Your task to perform on an android device: open a bookmark in the chrome app Image 0: 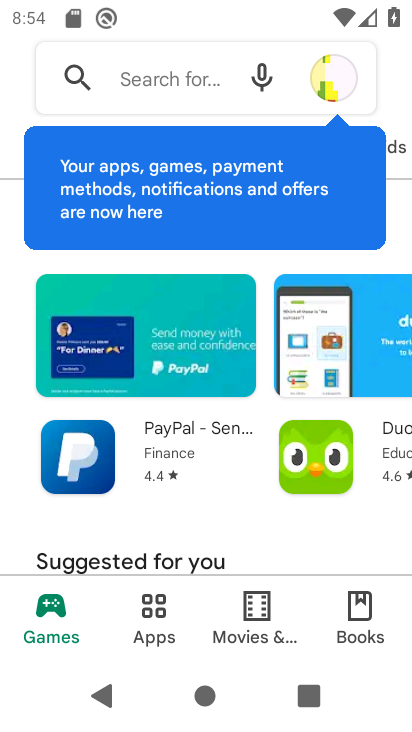
Step 0: press home button
Your task to perform on an android device: open a bookmark in the chrome app Image 1: 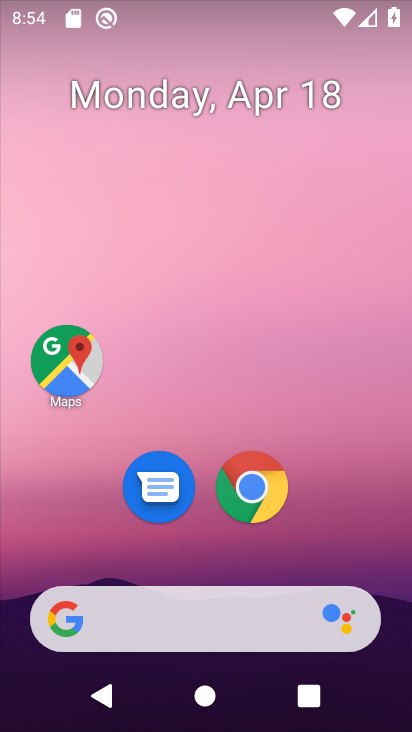
Step 1: click (261, 488)
Your task to perform on an android device: open a bookmark in the chrome app Image 2: 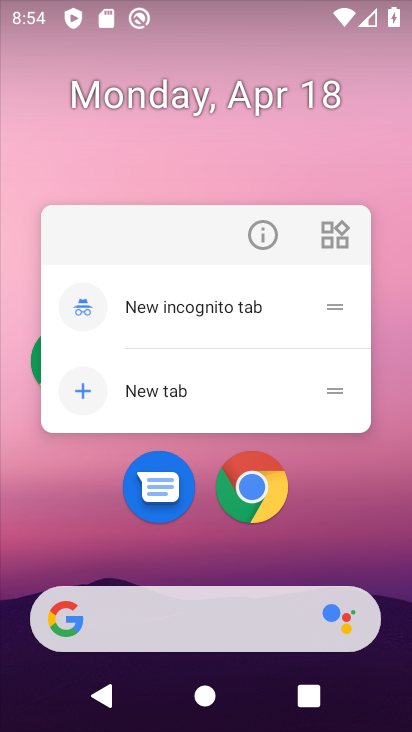
Step 2: click (261, 488)
Your task to perform on an android device: open a bookmark in the chrome app Image 3: 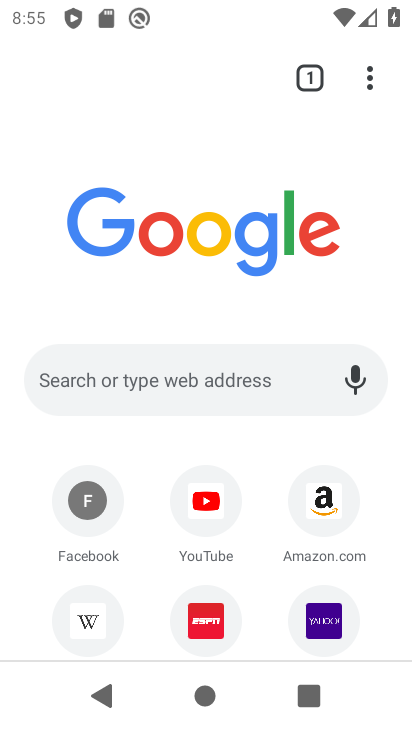
Step 3: click (369, 71)
Your task to perform on an android device: open a bookmark in the chrome app Image 4: 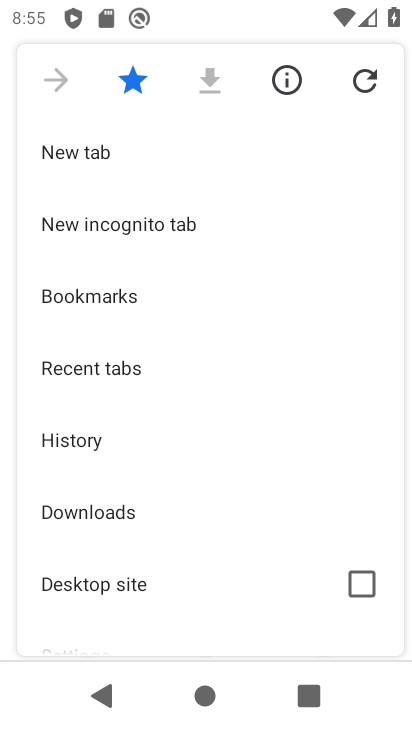
Step 4: click (214, 299)
Your task to perform on an android device: open a bookmark in the chrome app Image 5: 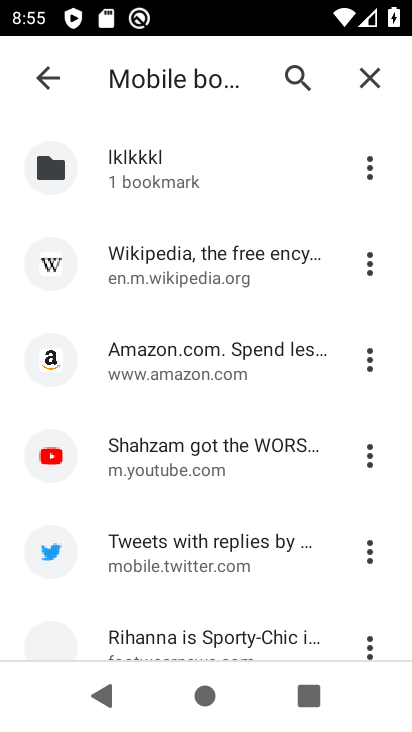
Step 5: click (170, 362)
Your task to perform on an android device: open a bookmark in the chrome app Image 6: 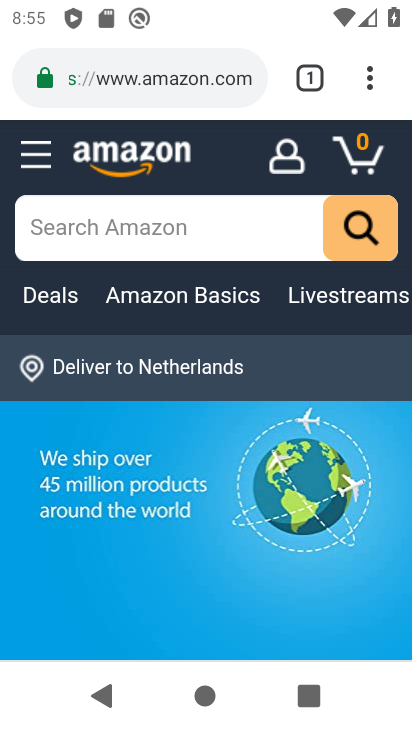
Step 6: task complete